Your task to perform on an android device: Show the shopping cart on amazon.com. Image 0: 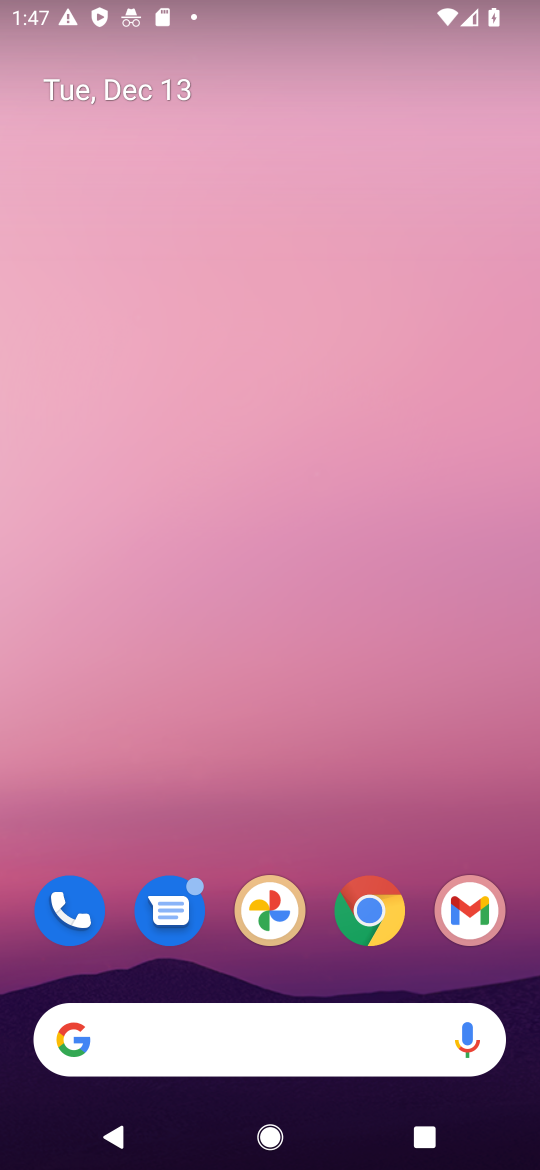
Step 0: click (377, 908)
Your task to perform on an android device: Show the shopping cart on amazon.com. Image 1: 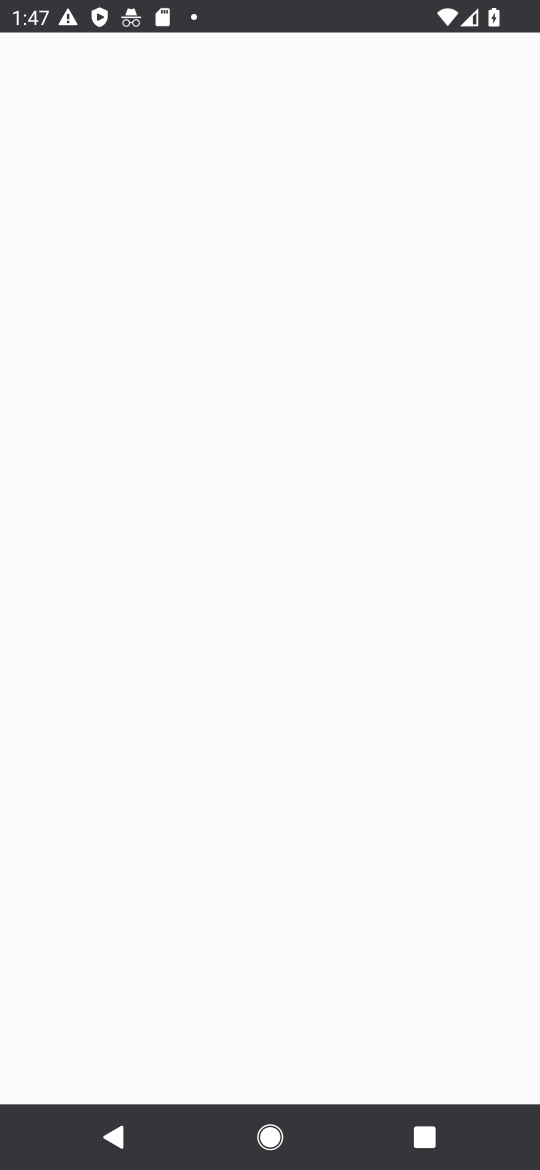
Step 1: click (325, 201)
Your task to perform on an android device: Show the shopping cart on amazon.com. Image 2: 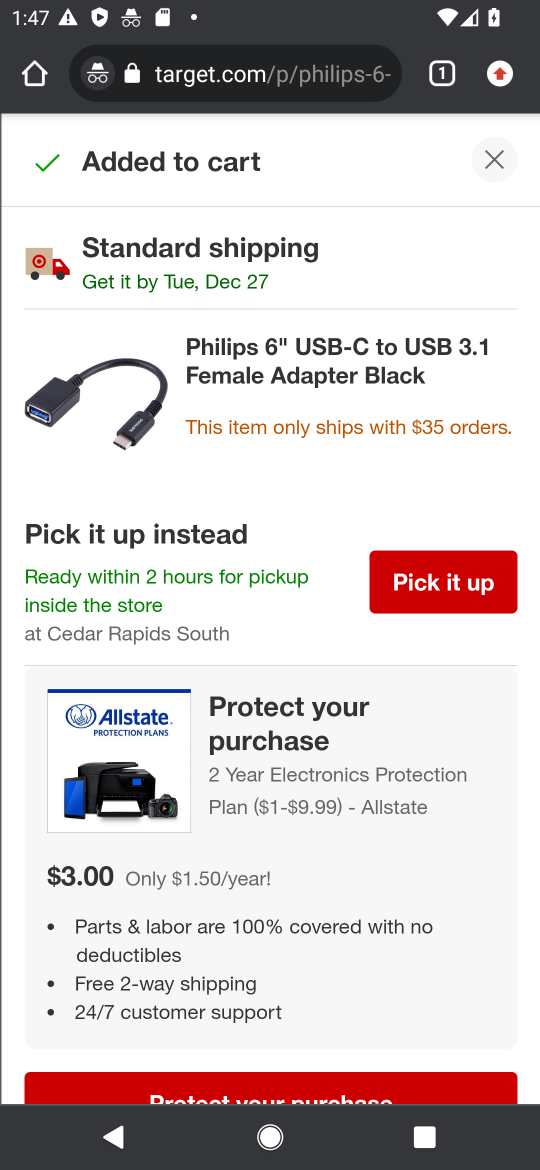
Step 2: click (209, 68)
Your task to perform on an android device: Show the shopping cart on amazon.com. Image 3: 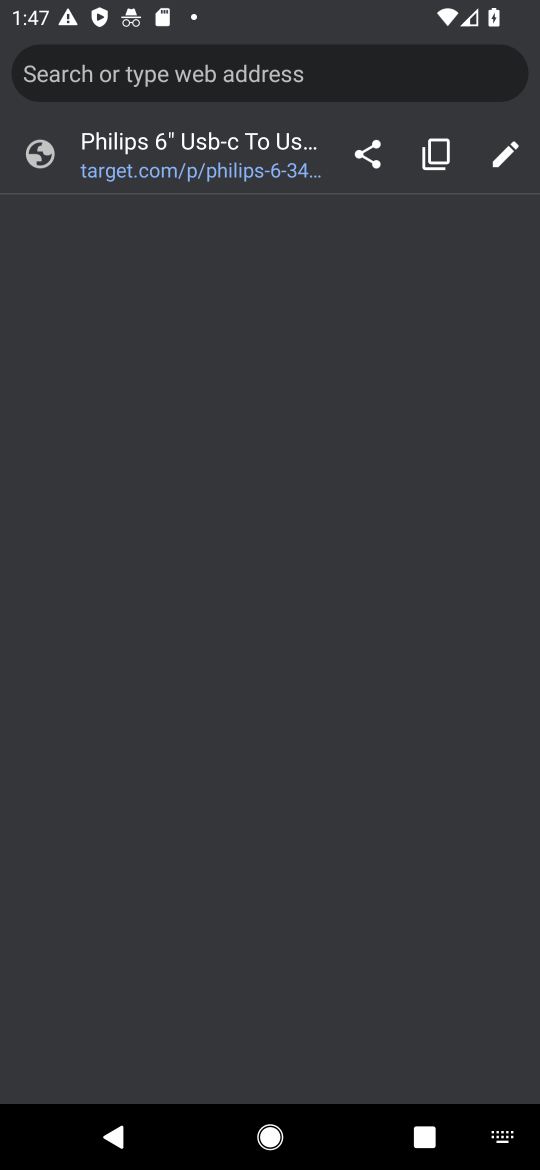
Step 3: type "AMAZON"
Your task to perform on an android device: Show the shopping cart on amazon.com. Image 4: 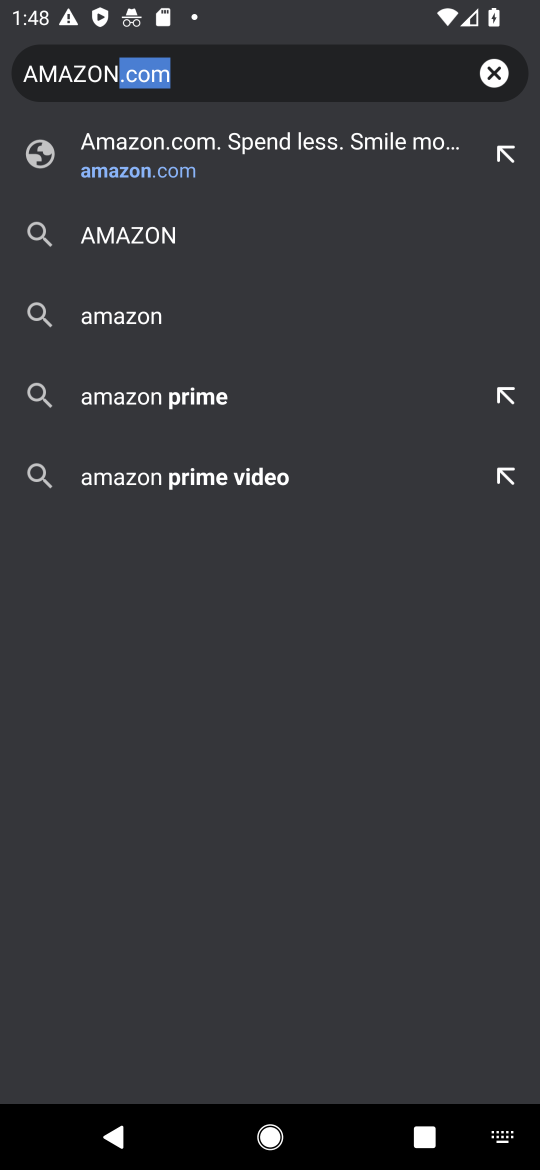
Step 4: click (141, 158)
Your task to perform on an android device: Show the shopping cart on amazon.com. Image 5: 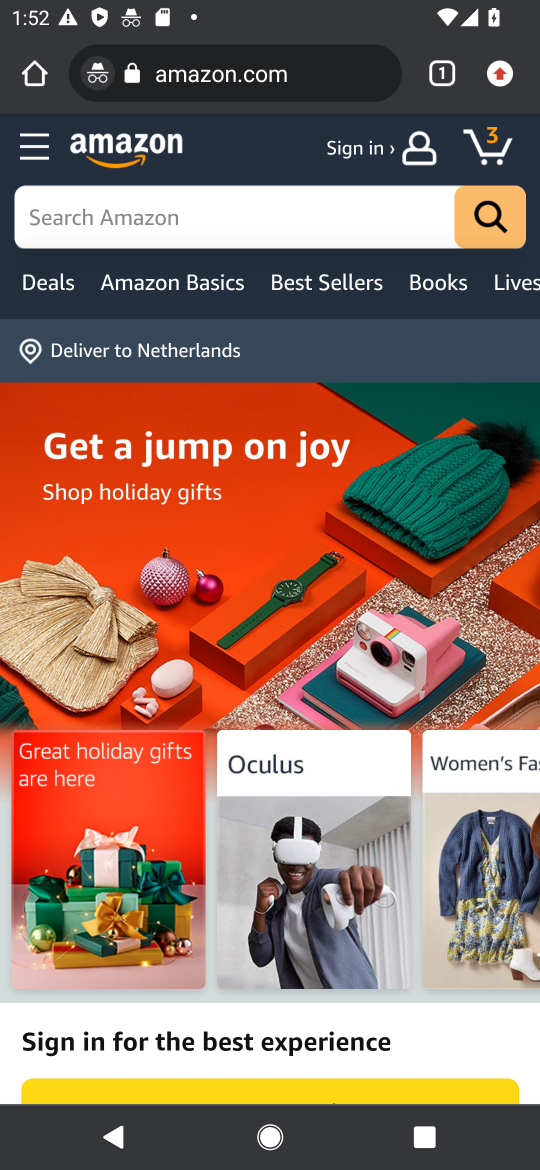
Step 5: task complete